Your task to perform on an android device: Open Youtube and go to "Your channel" Image 0: 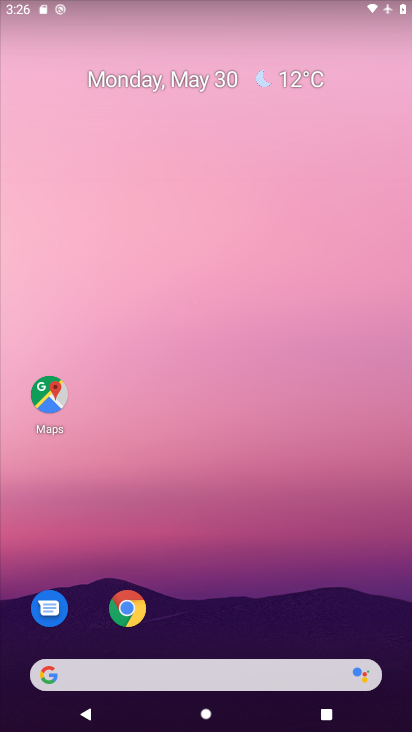
Step 0: drag from (256, 496) to (105, 25)
Your task to perform on an android device: Open Youtube and go to "Your channel" Image 1: 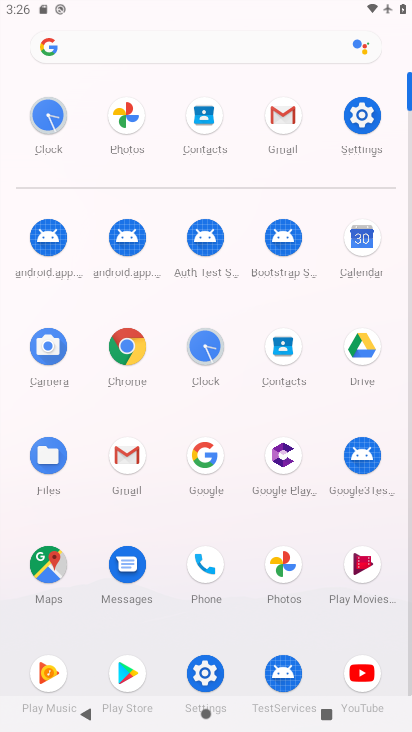
Step 1: drag from (296, 518) to (260, 125)
Your task to perform on an android device: Open Youtube and go to "Your channel" Image 2: 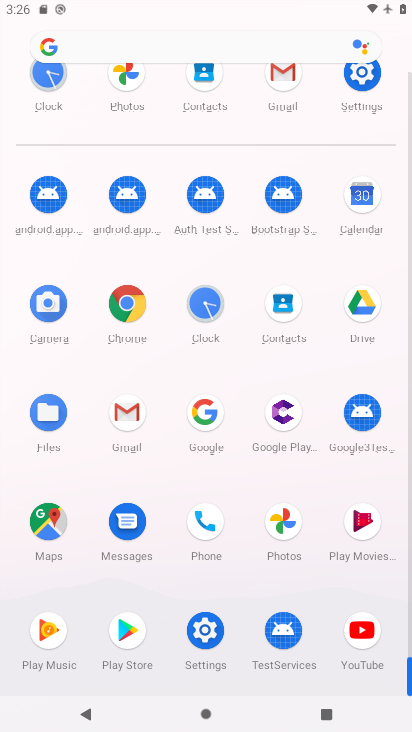
Step 2: click (367, 629)
Your task to perform on an android device: Open Youtube and go to "Your channel" Image 3: 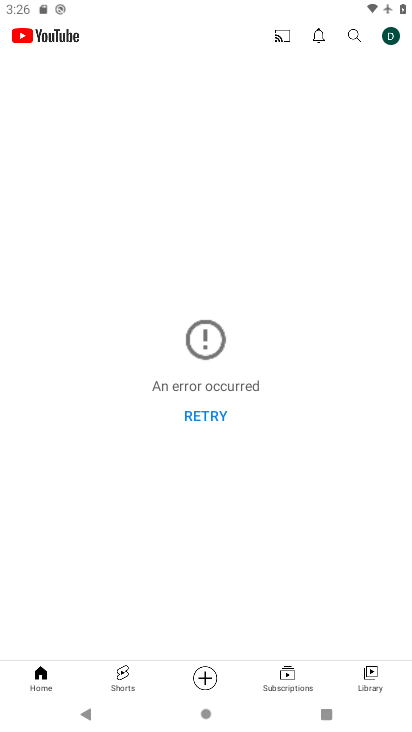
Step 3: click (219, 407)
Your task to perform on an android device: Open Youtube and go to "Your channel" Image 4: 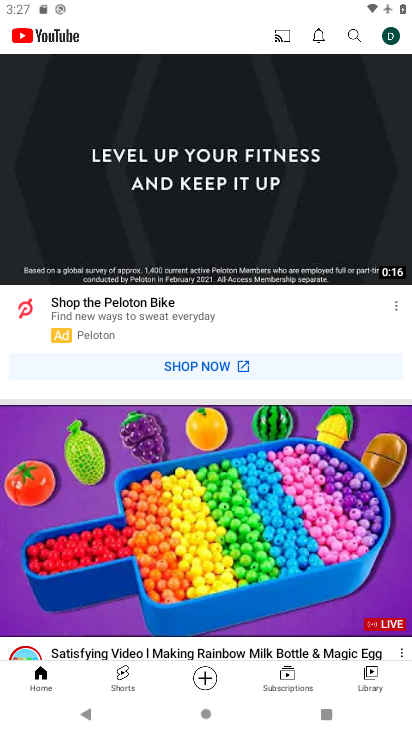
Step 4: click (394, 29)
Your task to perform on an android device: Open Youtube and go to "Your channel" Image 5: 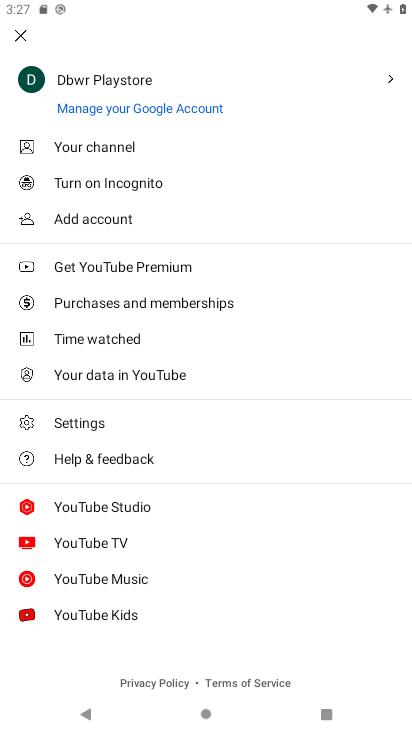
Step 5: click (122, 139)
Your task to perform on an android device: Open Youtube and go to "Your channel" Image 6: 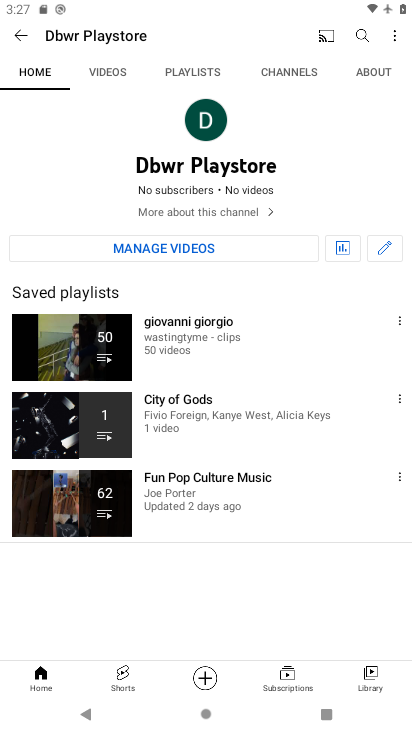
Step 6: task complete